Your task to perform on an android device: clear history in the chrome app Image 0: 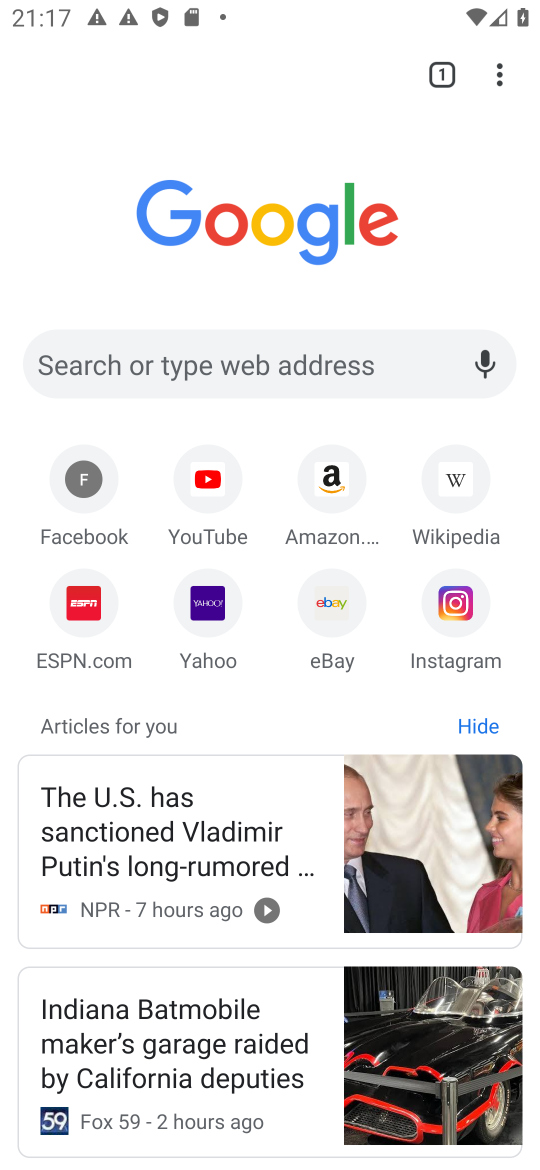
Step 0: click (497, 64)
Your task to perform on an android device: clear history in the chrome app Image 1: 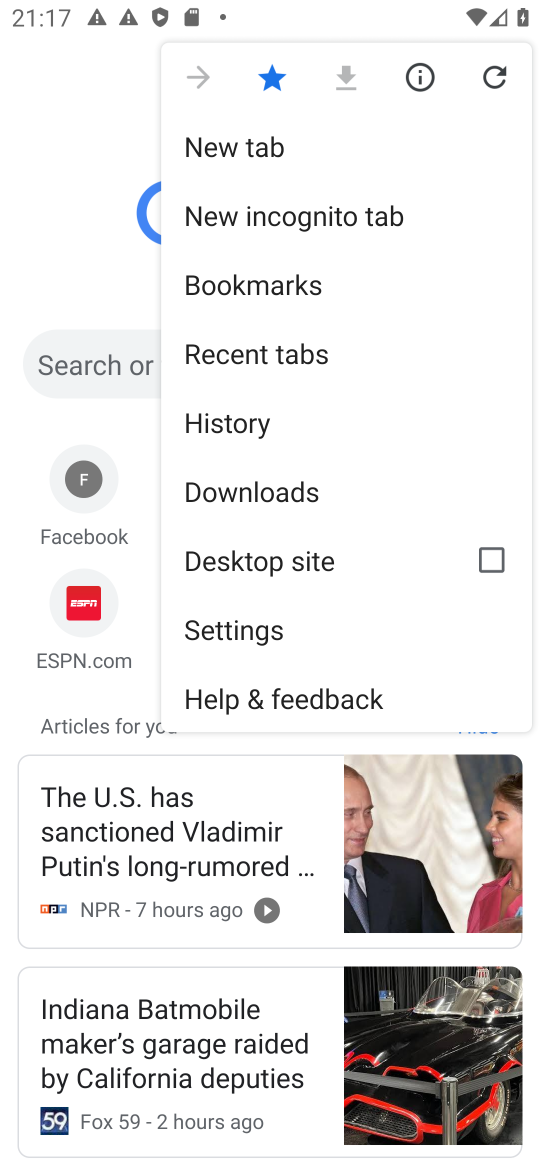
Step 1: click (226, 414)
Your task to perform on an android device: clear history in the chrome app Image 2: 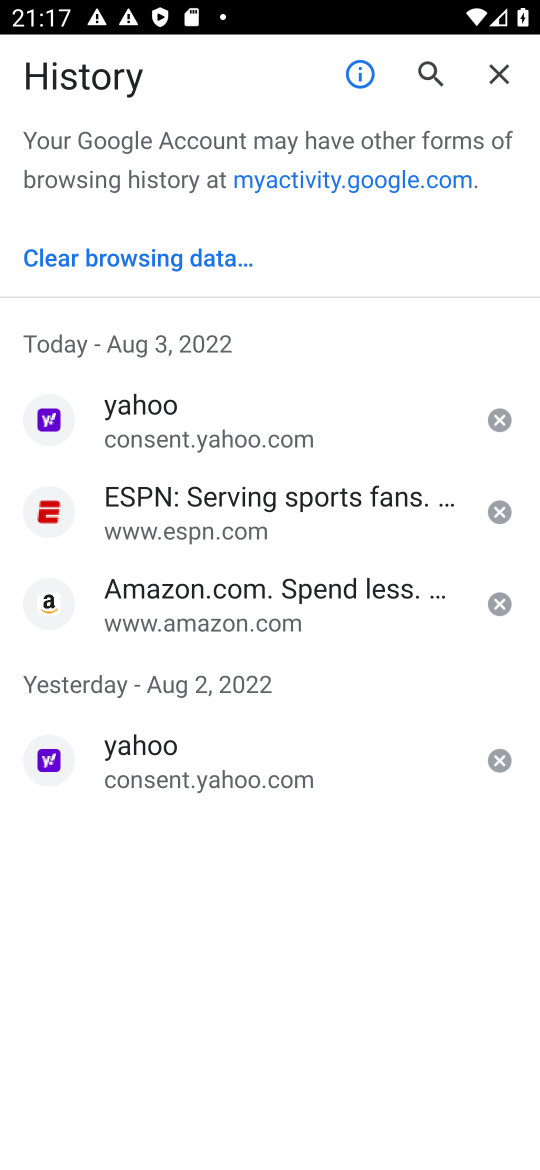
Step 2: click (159, 260)
Your task to perform on an android device: clear history in the chrome app Image 3: 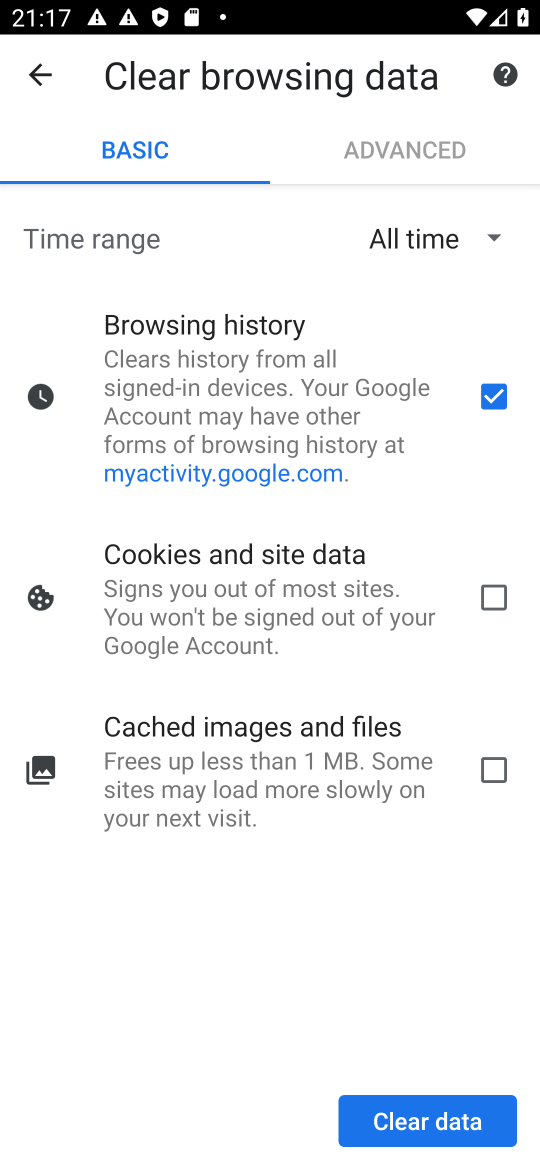
Step 3: click (418, 1104)
Your task to perform on an android device: clear history in the chrome app Image 4: 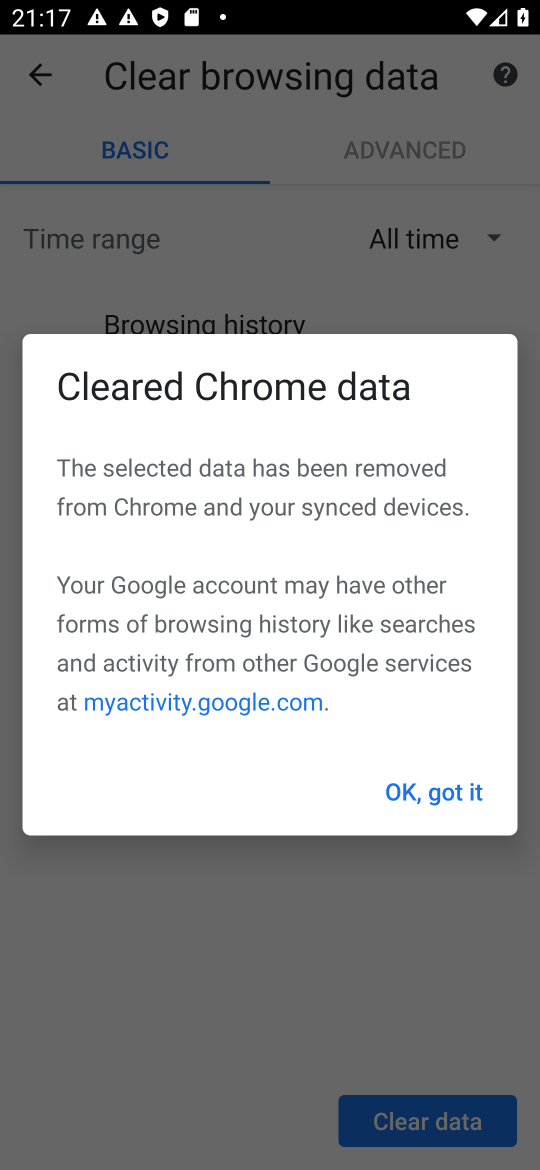
Step 4: click (404, 802)
Your task to perform on an android device: clear history in the chrome app Image 5: 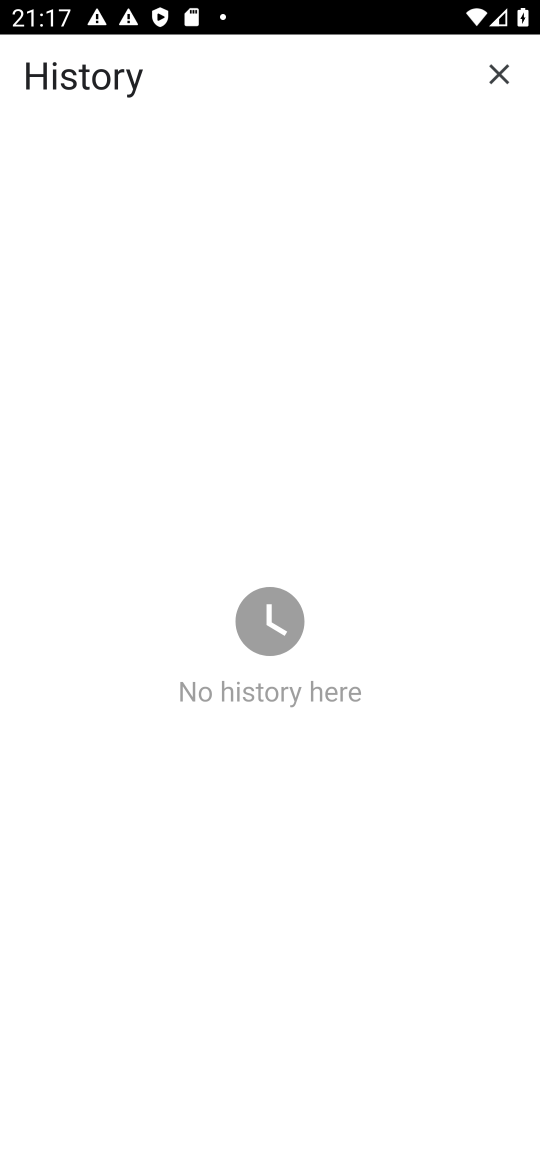
Step 5: click (404, 802)
Your task to perform on an android device: clear history in the chrome app Image 6: 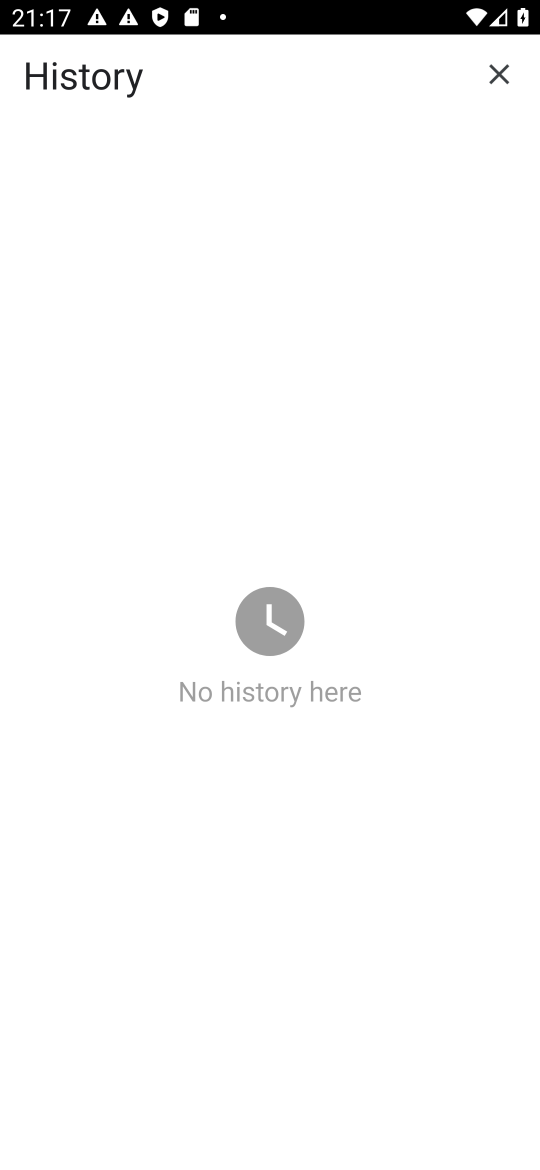
Step 6: task complete